Your task to perform on an android device: change the clock style Image 0: 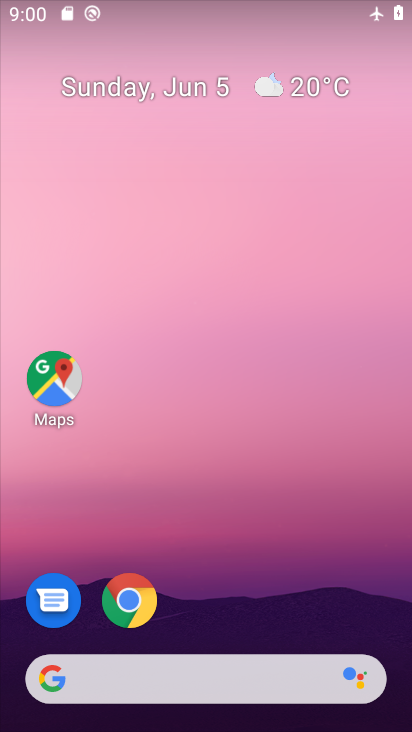
Step 0: drag from (218, 526) to (218, 0)
Your task to perform on an android device: change the clock style Image 1: 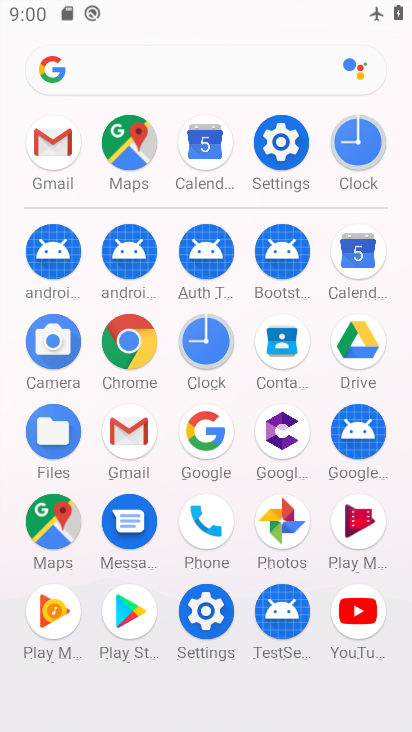
Step 1: click (363, 142)
Your task to perform on an android device: change the clock style Image 2: 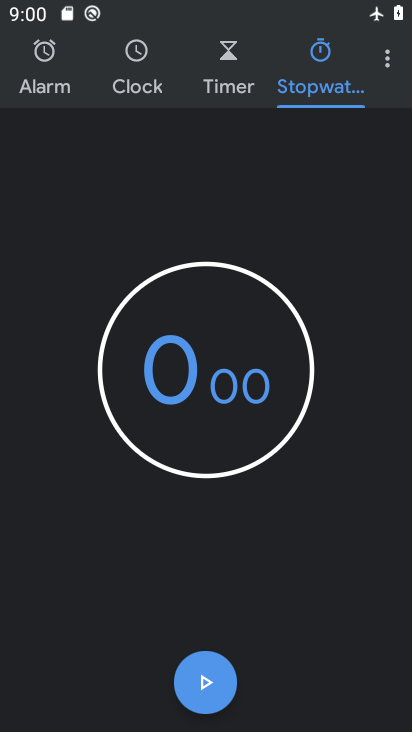
Step 2: click (389, 61)
Your task to perform on an android device: change the clock style Image 3: 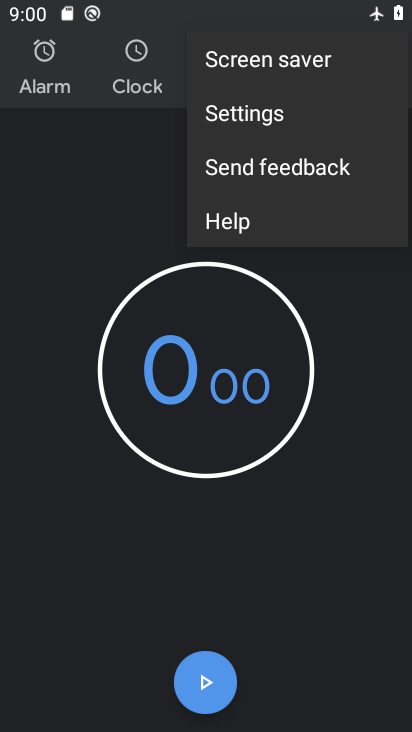
Step 3: click (324, 110)
Your task to perform on an android device: change the clock style Image 4: 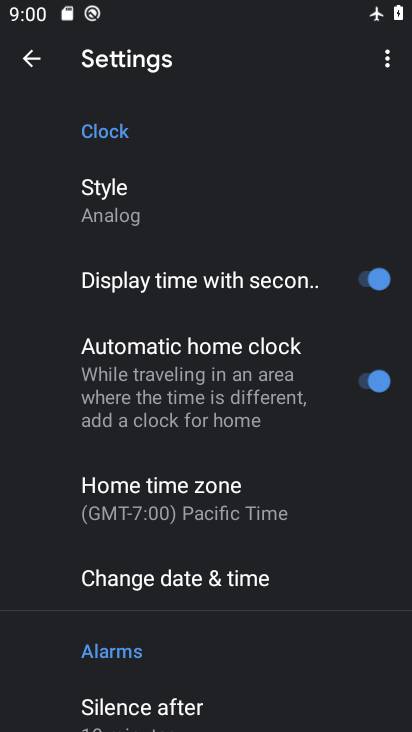
Step 4: click (173, 205)
Your task to perform on an android device: change the clock style Image 5: 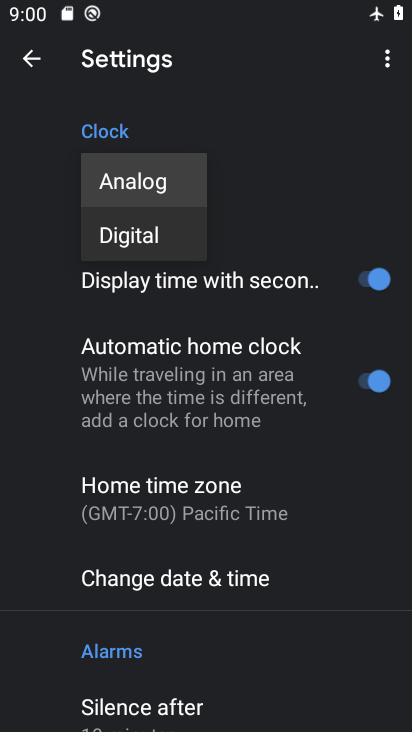
Step 5: click (173, 230)
Your task to perform on an android device: change the clock style Image 6: 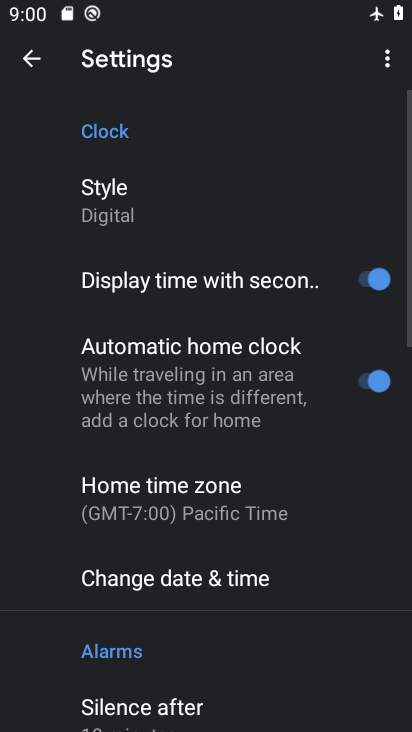
Step 6: click (41, 71)
Your task to perform on an android device: change the clock style Image 7: 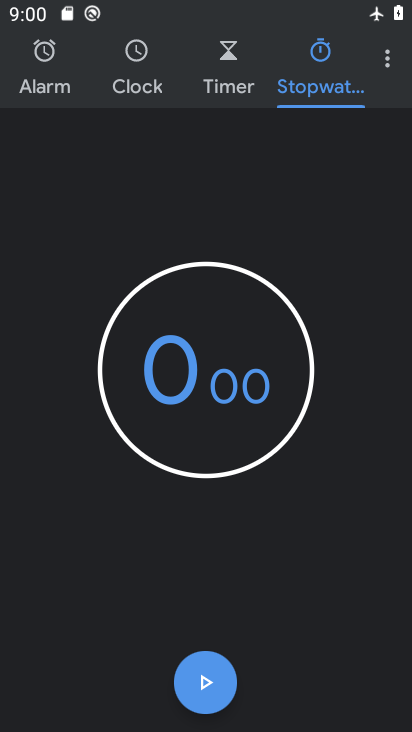
Step 7: click (122, 61)
Your task to perform on an android device: change the clock style Image 8: 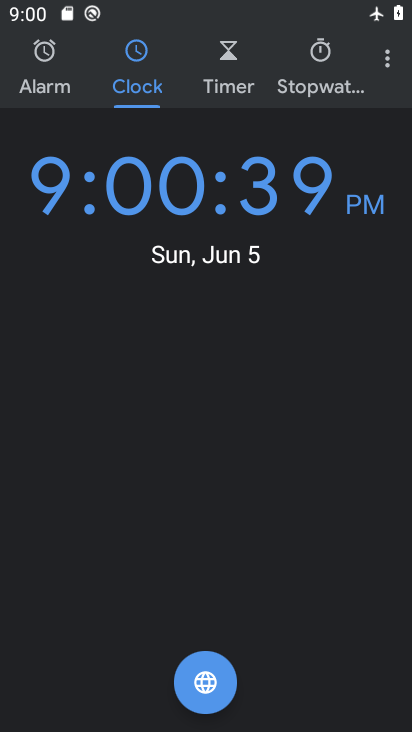
Step 8: task complete